Your task to perform on an android device: Go to eBay Image 0: 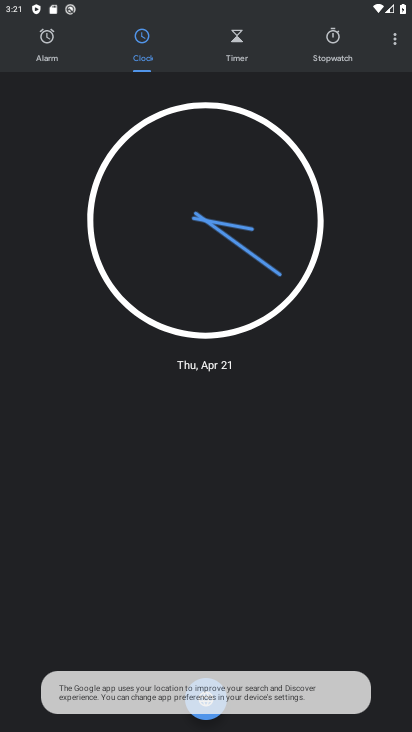
Step 0: press home button
Your task to perform on an android device: Go to eBay Image 1: 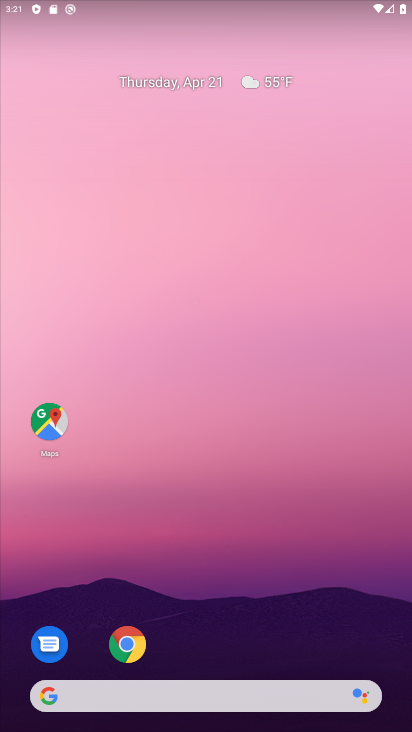
Step 1: drag from (222, 665) to (150, 0)
Your task to perform on an android device: Go to eBay Image 2: 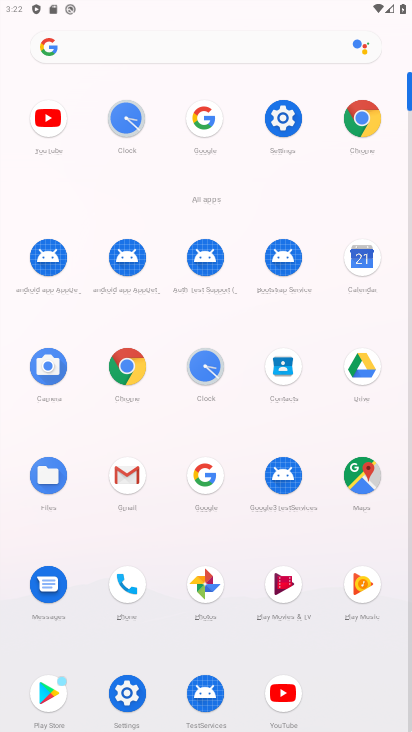
Step 2: click (124, 348)
Your task to perform on an android device: Go to eBay Image 3: 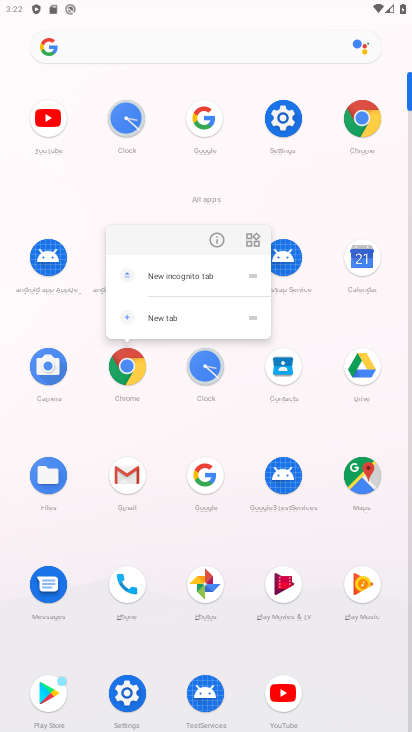
Step 3: click (123, 368)
Your task to perform on an android device: Go to eBay Image 4: 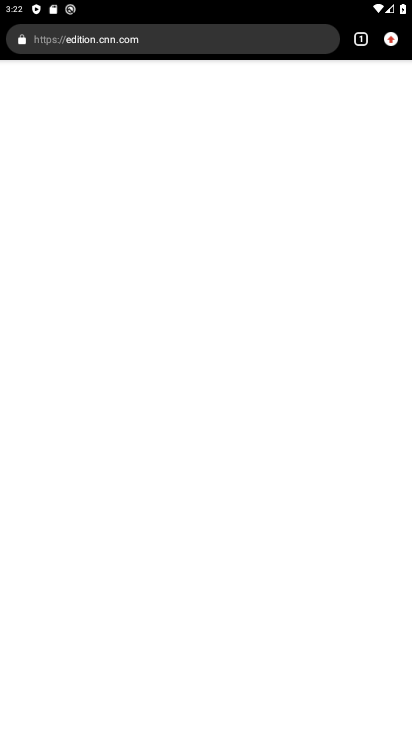
Step 4: click (179, 46)
Your task to perform on an android device: Go to eBay Image 5: 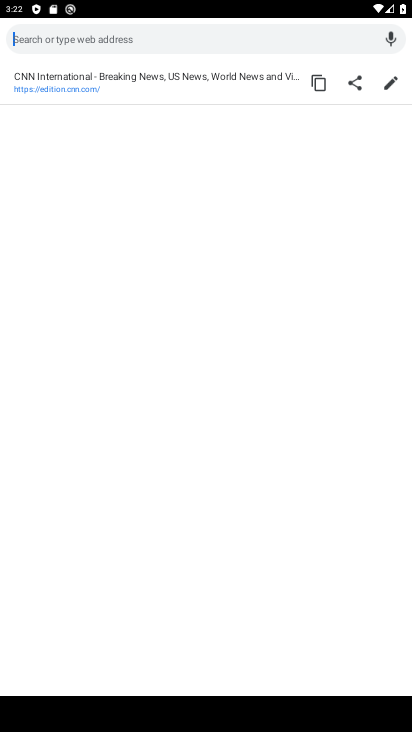
Step 5: type "ebay"
Your task to perform on an android device: Go to eBay Image 6: 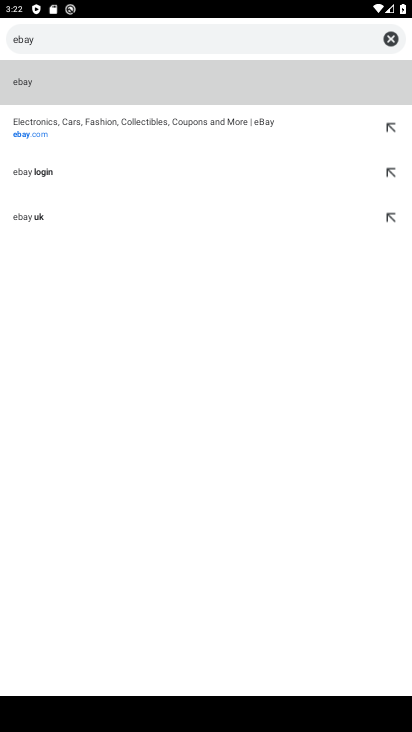
Step 6: click (37, 114)
Your task to perform on an android device: Go to eBay Image 7: 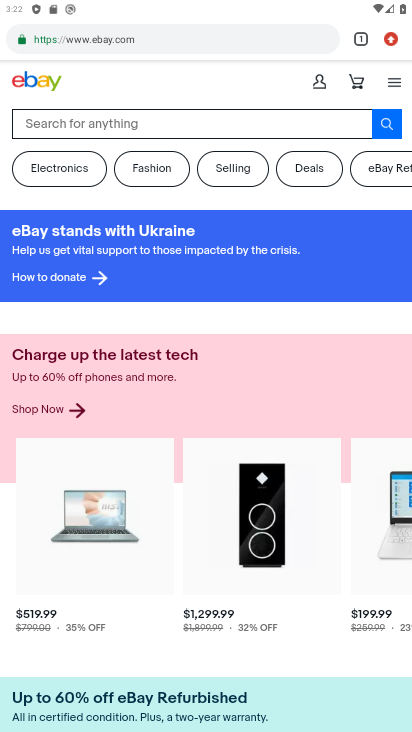
Step 7: task complete